Your task to perform on an android device: Search for sushi restaurants on Maps Image 0: 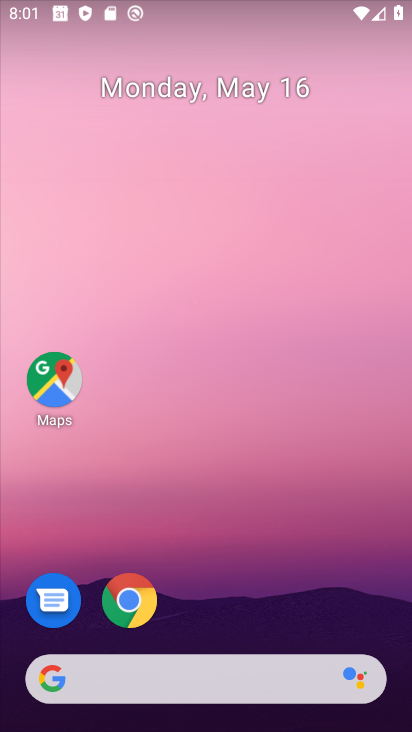
Step 0: click (48, 382)
Your task to perform on an android device: Search for sushi restaurants on Maps Image 1: 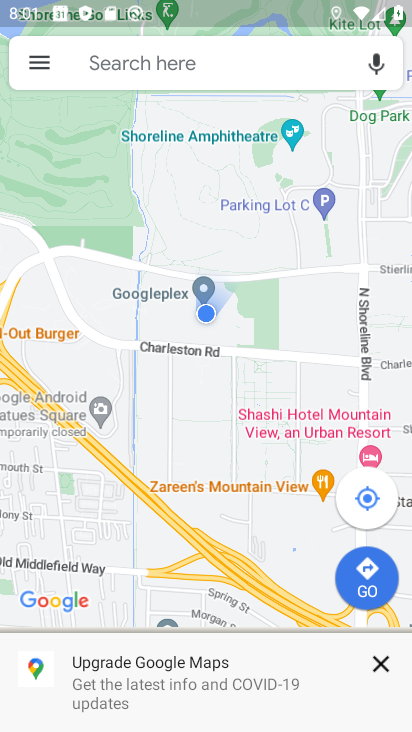
Step 1: click (109, 58)
Your task to perform on an android device: Search for sushi restaurants on Maps Image 2: 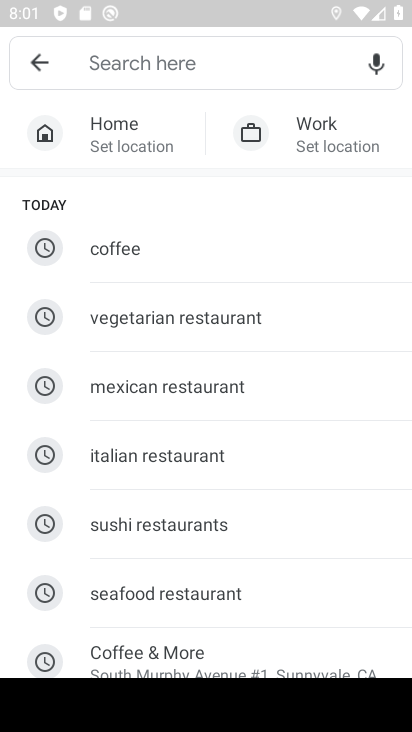
Step 2: type "sushi restaurants"
Your task to perform on an android device: Search for sushi restaurants on Maps Image 3: 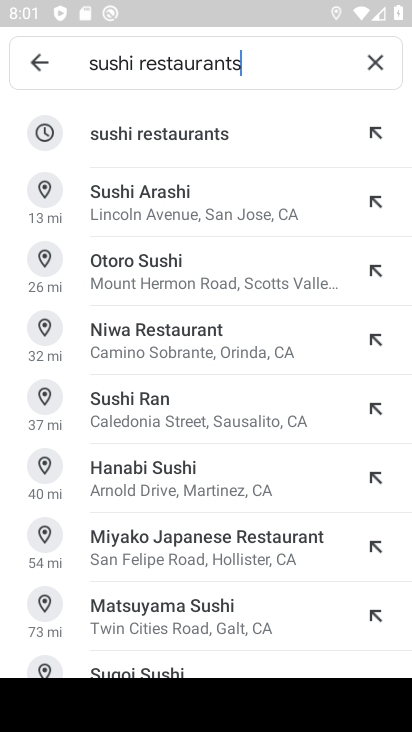
Step 3: click (138, 119)
Your task to perform on an android device: Search for sushi restaurants on Maps Image 4: 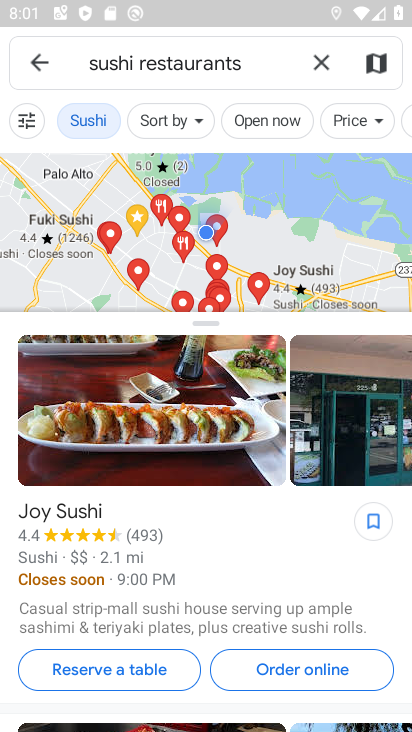
Step 4: task complete